Your task to perform on an android device: refresh tabs in the chrome app Image 0: 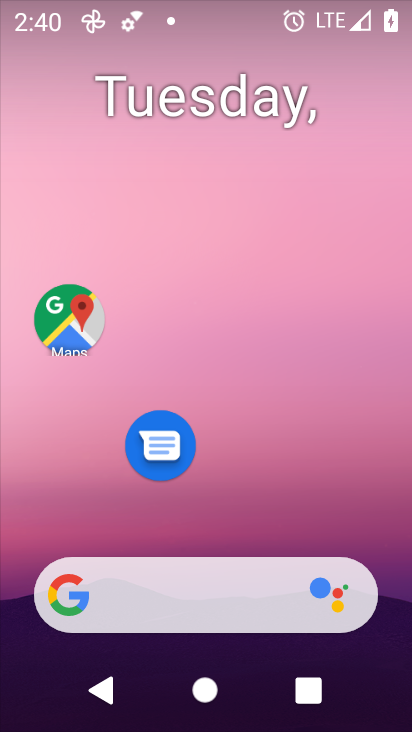
Step 0: drag from (277, 497) to (156, 155)
Your task to perform on an android device: refresh tabs in the chrome app Image 1: 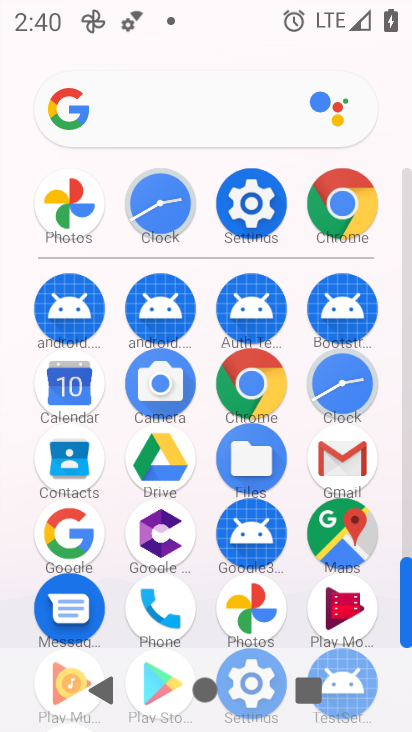
Step 1: click (342, 204)
Your task to perform on an android device: refresh tabs in the chrome app Image 2: 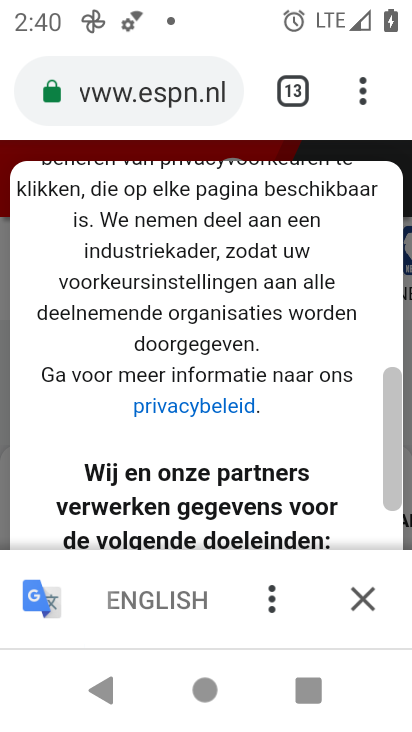
Step 2: click (361, 85)
Your task to perform on an android device: refresh tabs in the chrome app Image 3: 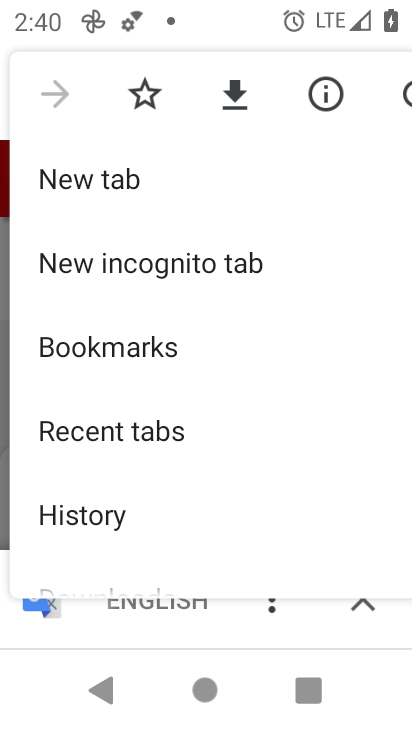
Step 3: click (406, 94)
Your task to perform on an android device: refresh tabs in the chrome app Image 4: 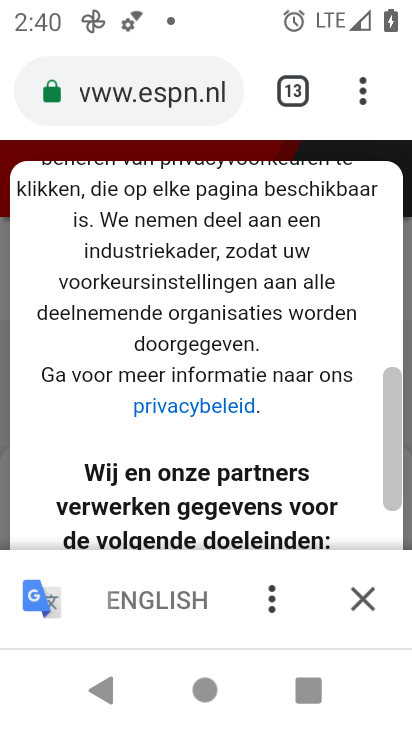
Step 4: task complete